Your task to perform on an android device: check storage Image 0: 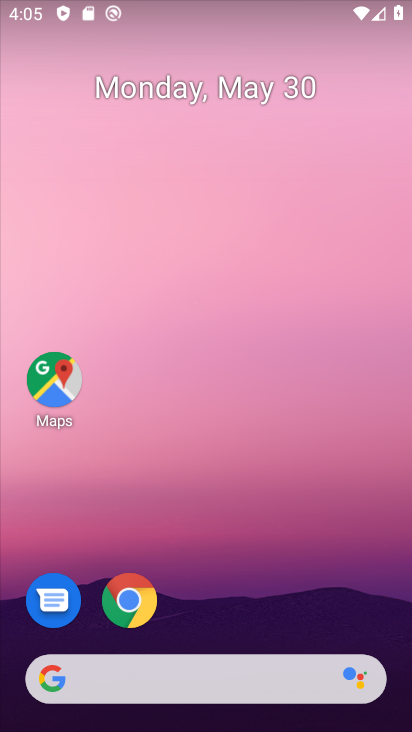
Step 0: drag from (260, 631) to (208, 63)
Your task to perform on an android device: check storage Image 1: 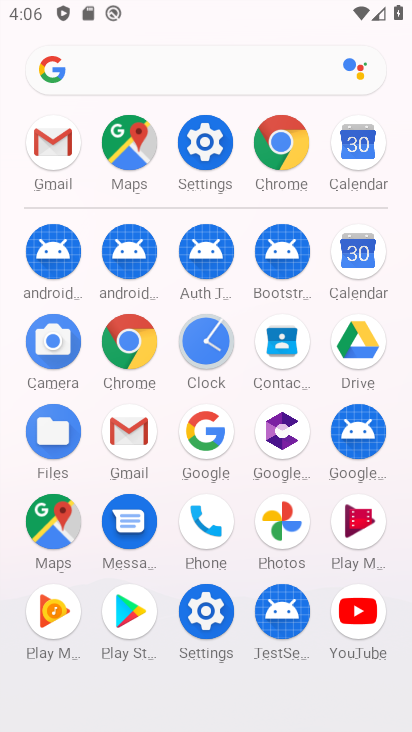
Step 1: click (213, 148)
Your task to perform on an android device: check storage Image 2: 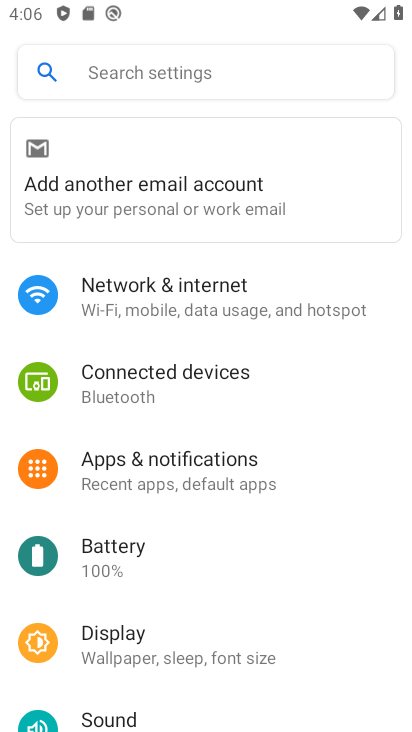
Step 2: drag from (222, 600) to (197, 306)
Your task to perform on an android device: check storage Image 3: 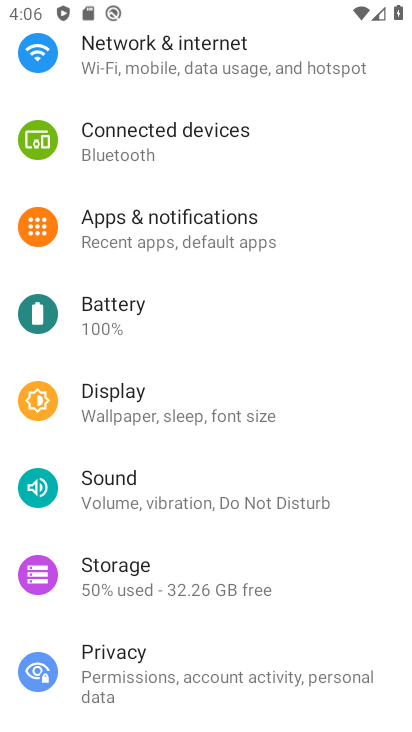
Step 3: click (200, 595)
Your task to perform on an android device: check storage Image 4: 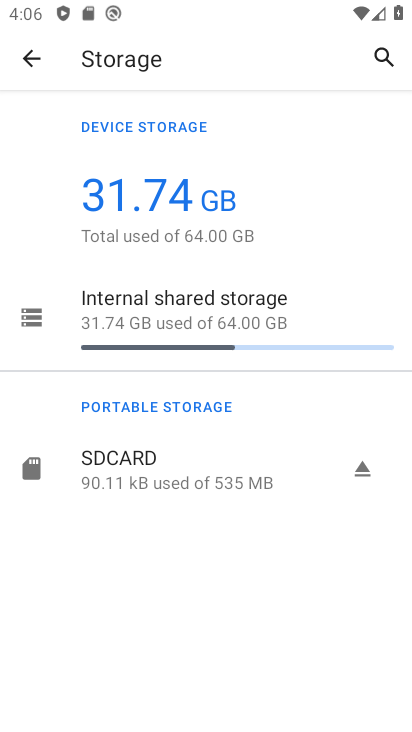
Step 4: task complete